Your task to perform on an android device: change the clock display to analog Image 0: 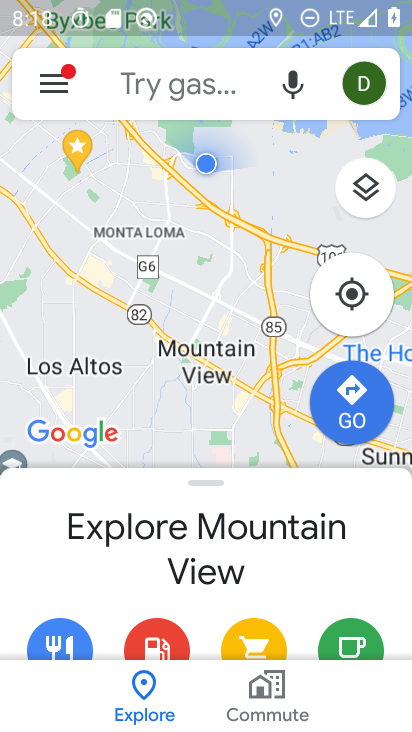
Step 0: press home button
Your task to perform on an android device: change the clock display to analog Image 1: 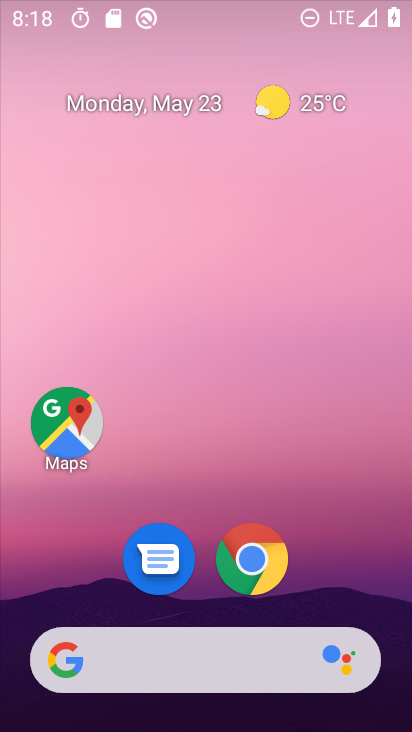
Step 1: drag from (389, 684) to (280, 37)
Your task to perform on an android device: change the clock display to analog Image 2: 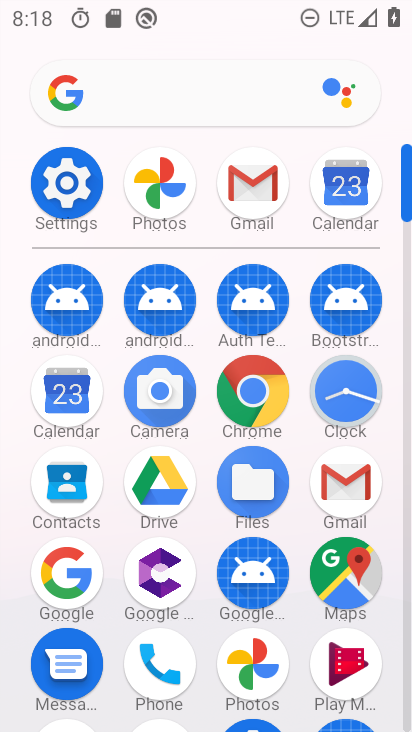
Step 2: click (337, 377)
Your task to perform on an android device: change the clock display to analog Image 3: 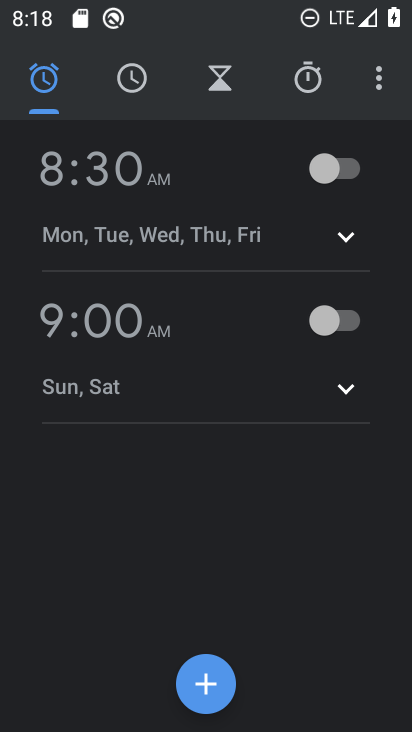
Step 3: click (379, 65)
Your task to perform on an android device: change the clock display to analog Image 4: 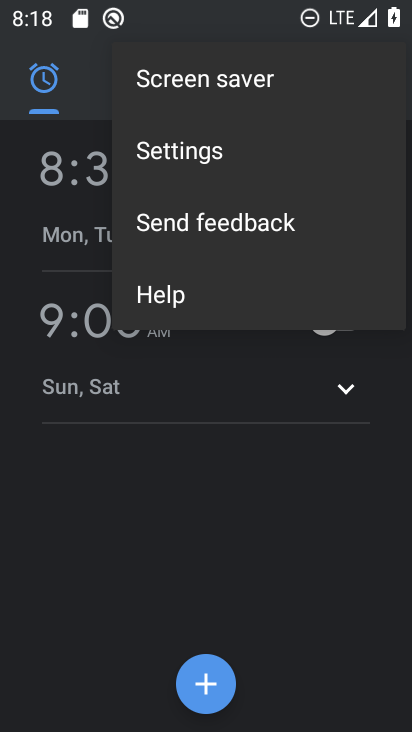
Step 4: click (232, 162)
Your task to perform on an android device: change the clock display to analog Image 5: 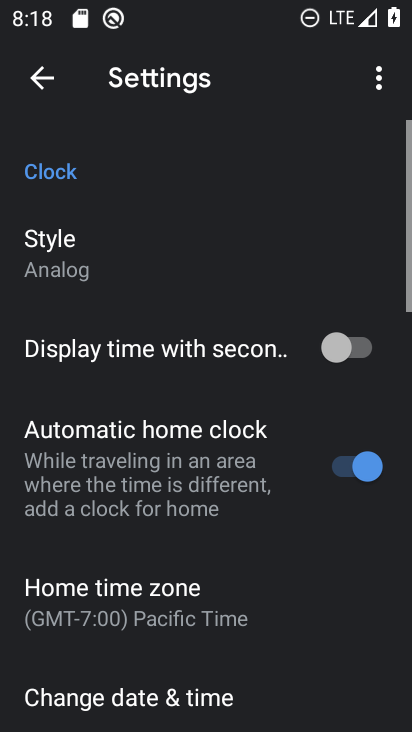
Step 5: click (85, 254)
Your task to perform on an android device: change the clock display to analog Image 6: 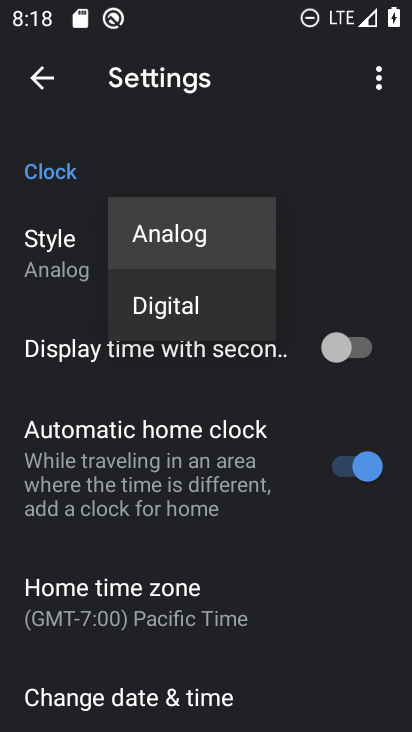
Step 6: click (160, 241)
Your task to perform on an android device: change the clock display to analog Image 7: 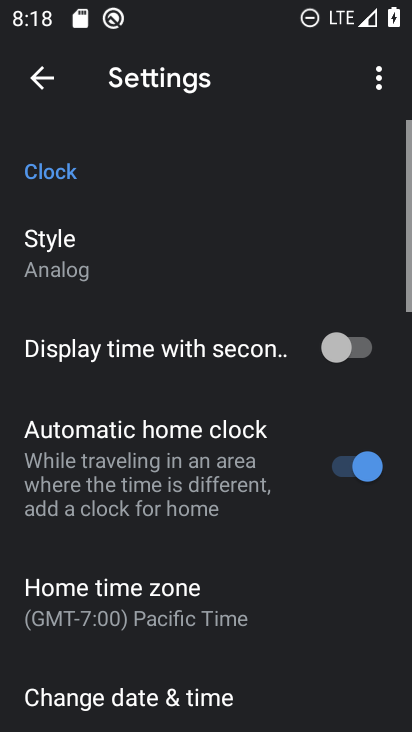
Step 7: task complete